Your task to perform on an android device: turn off javascript in the chrome app Image 0: 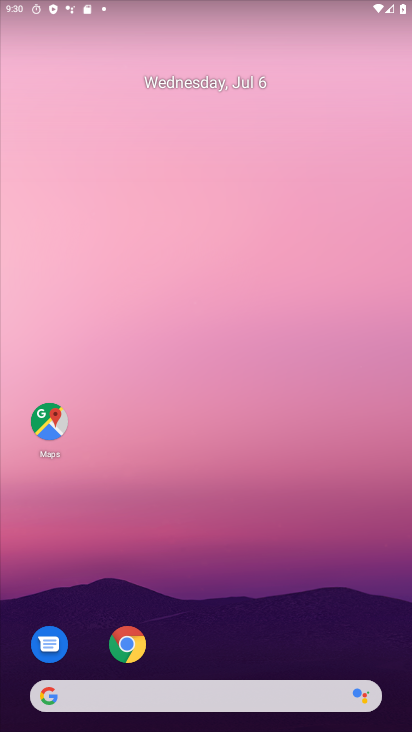
Step 0: drag from (256, 714) to (290, 262)
Your task to perform on an android device: turn off javascript in the chrome app Image 1: 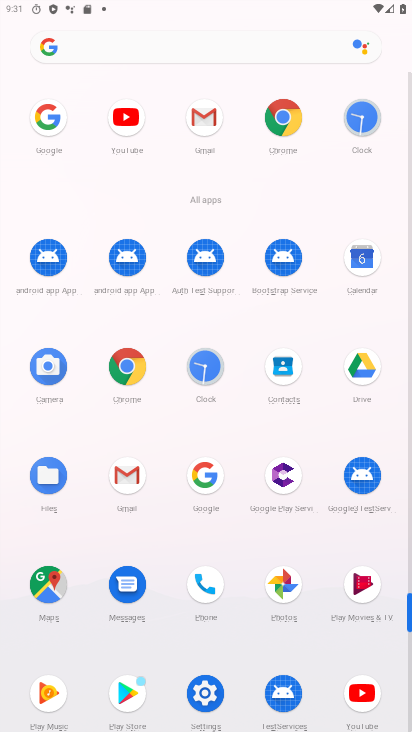
Step 1: click (134, 363)
Your task to perform on an android device: turn off javascript in the chrome app Image 2: 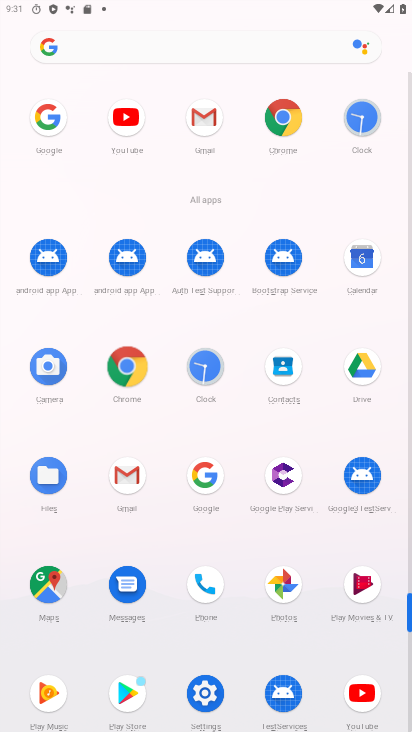
Step 2: click (134, 363)
Your task to perform on an android device: turn off javascript in the chrome app Image 3: 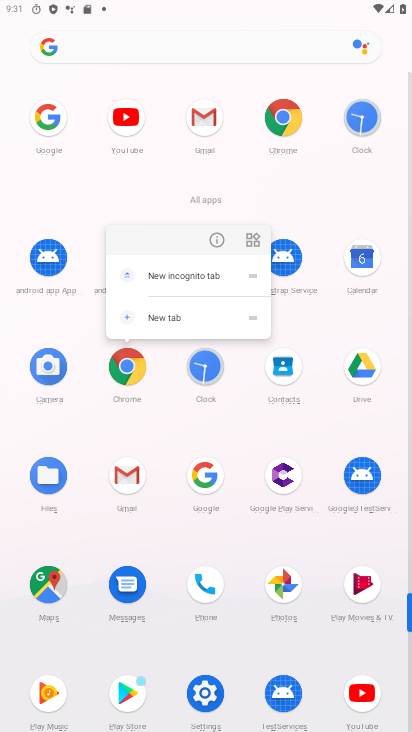
Step 3: click (119, 373)
Your task to perform on an android device: turn off javascript in the chrome app Image 4: 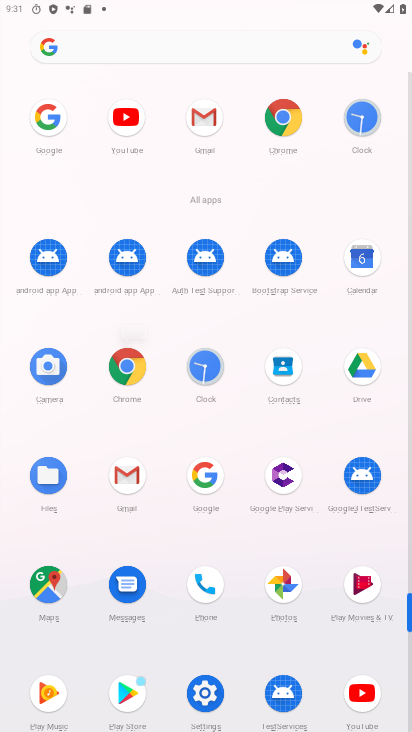
Step 4: click (119, 373)
Your task to perform on an android device: turn off javascript in the chrome app Image 5: 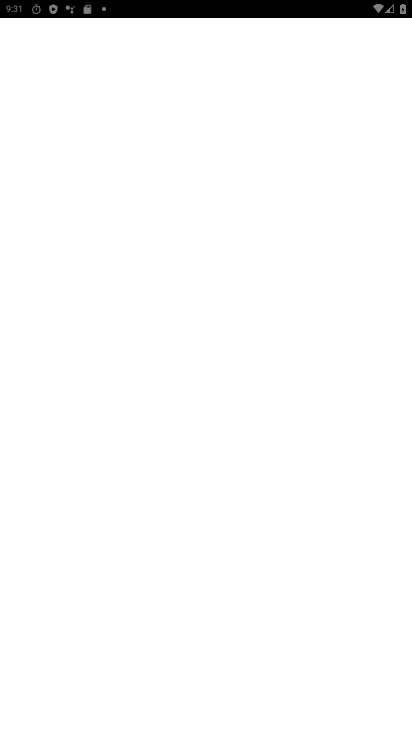
Step 5: click (117, 375)
Your task to perform on an android device: turn off javascript in the chrome app Image 6: 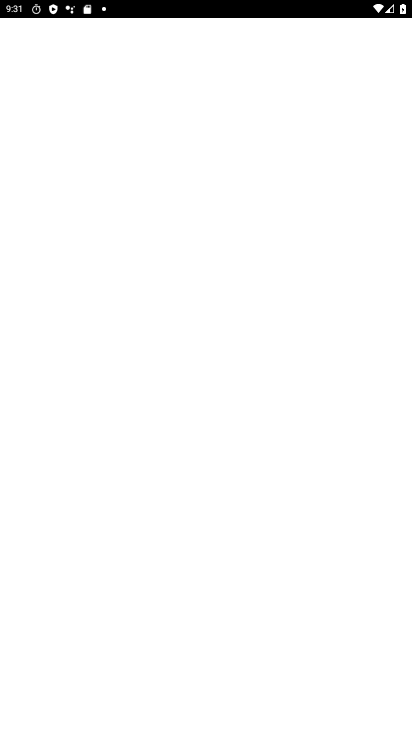
Step 6: click (118, 373)
Your task to perform on an android device: turn off javascript in the chrome app Image 7: 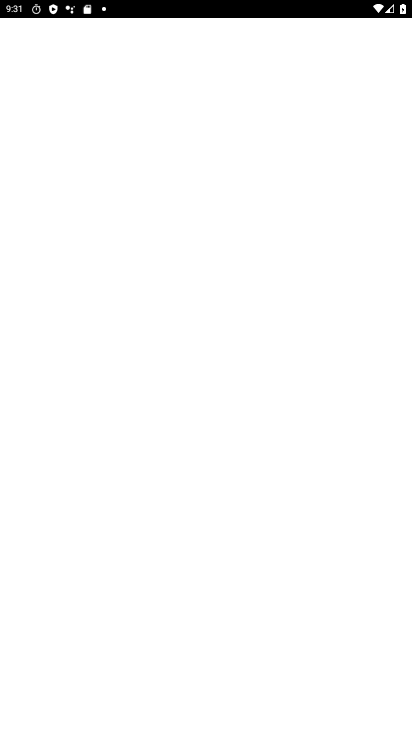
Step 7: click (118, 371)
Your task to perform on an android device: turn off javascript in the chrome app Image 8: 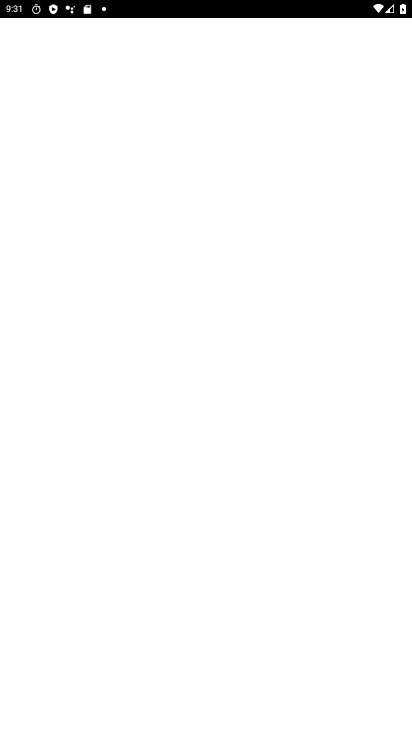
Step 8: click (120, 371)
Your task to perform on an android device: turn off javascript in the chrome app Image 9: 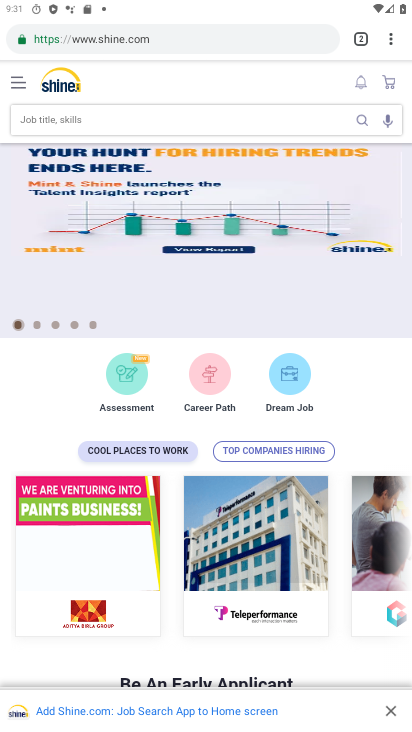
Step 9: drag from (388, 42) to (250, 523)
Your task to perform on an android device: turn off javascript in the chrome app Image 10: 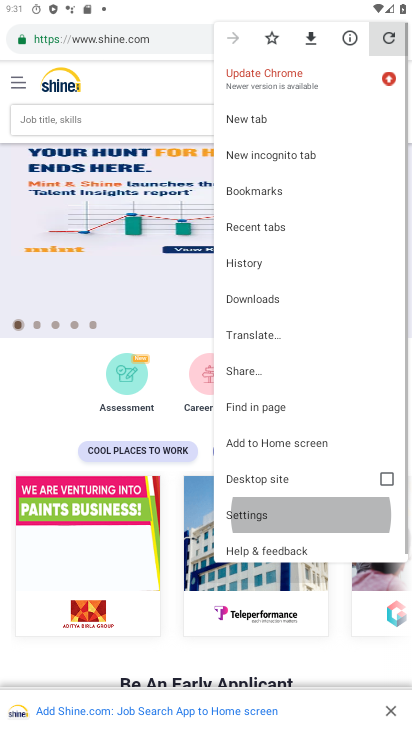
Step 10: click (249, 518)
Your task to perform on an android device: turn off javascript in the chrome app Image 11: 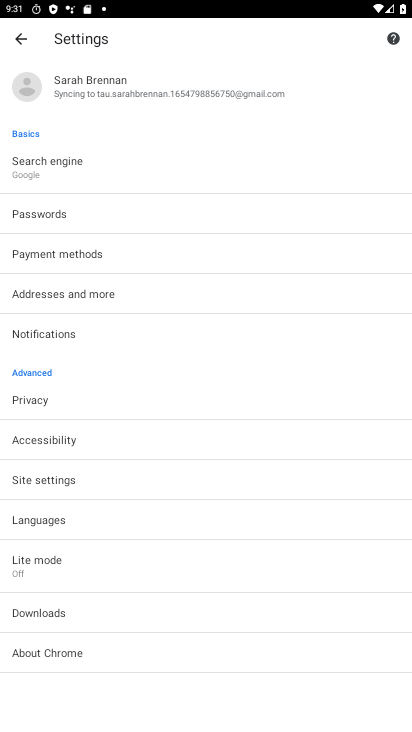
Step 11: click (250, 509)
Your task to perform on an android device: turn off javascript in the chrome app Image 12: 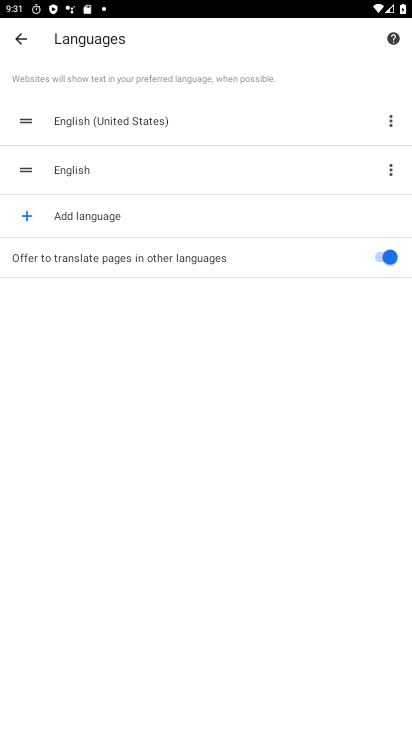
Step 12: click (19, 36)
Your task to perform on an android device: turn off javascript in the chrome app Image 13: 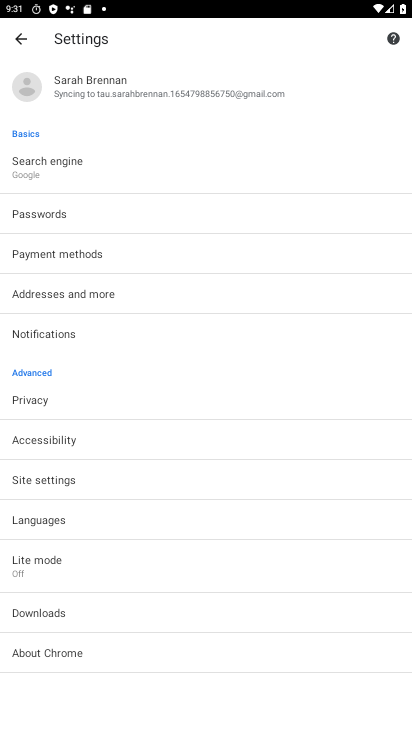
Step 13: click (58, 482)
Your task to perform on an android device: turn off javascript in the chrome app Image 14: 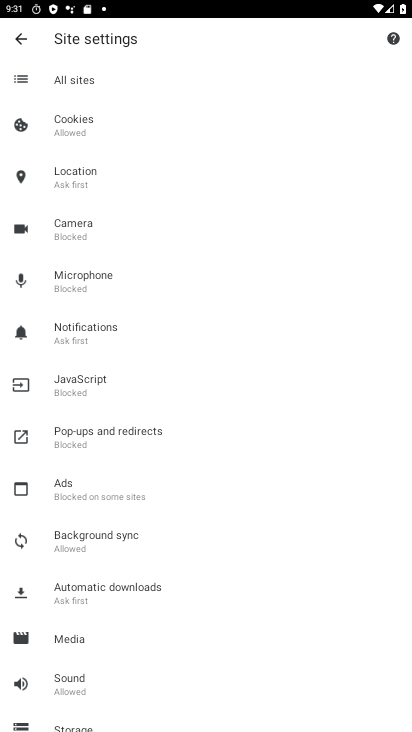
Step 14: drag from (144, 639) to (148, 401)
Your task to perform on an android device: turn off javascript in the chrome app Image 15: 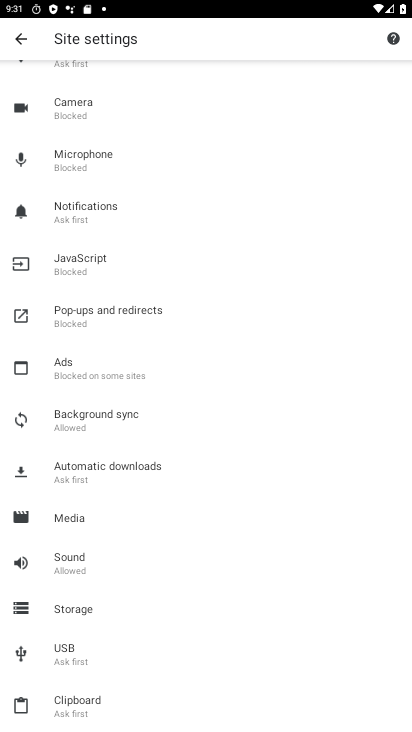
Step 15: click (73, 263)
Your task to perform on an android device: turn off javascript in the chrome app Image 16: 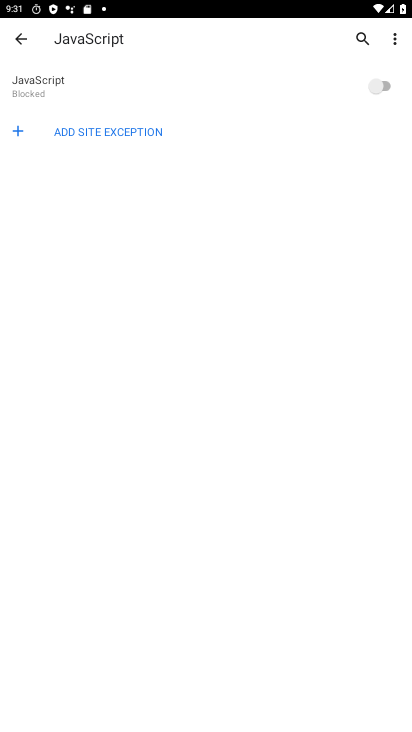
Step 16: task complete